Your task to perform on an android device: Go to settings Image 0: 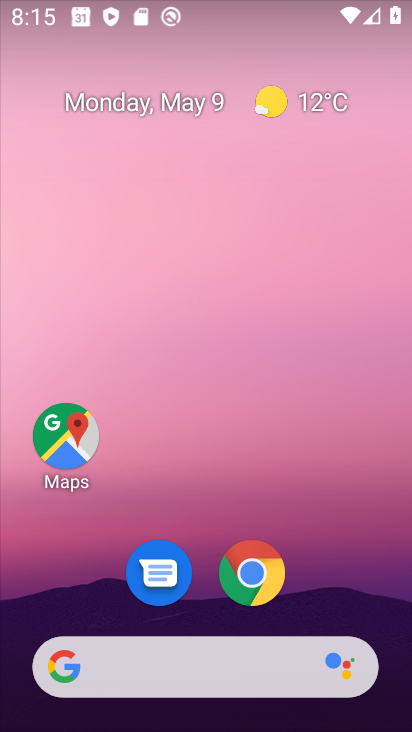
Step 0: drag from (289, 660) to (254, 91)
Your task to perform on an android device: Go to settings Image 1: 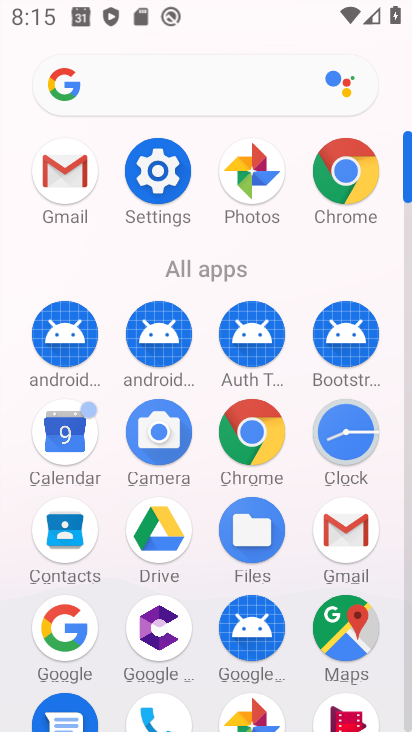
Step 1: click (179, 188)
Your task to perform on an android device: Go to settings Image 2: 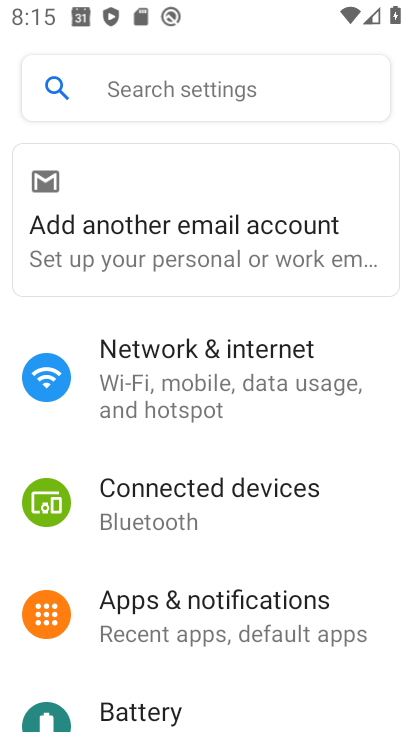
Step 2: task complete